Your task to perform on an android device: Open Android settings Image 0: 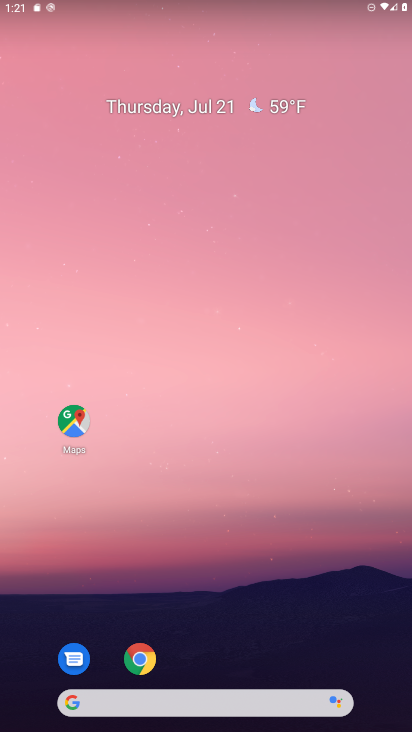
Step 0: drag from (10, 726) to (240, 153)
Your task to perform on an android device: Open Android settings Image 1: 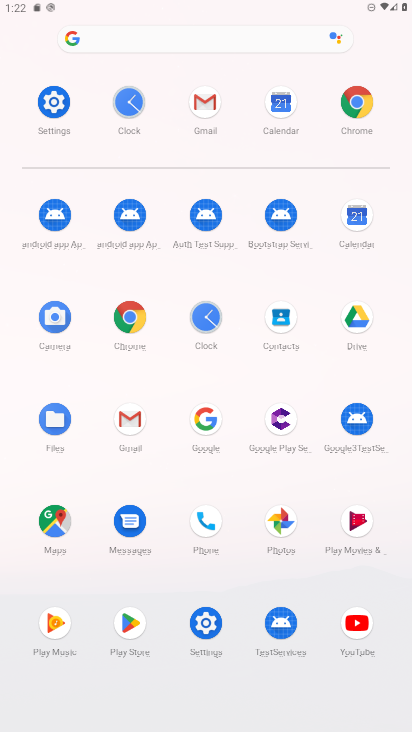
Step 1: click (54, 116)
Your task to perform on an android device: Open Android settings Image 2: 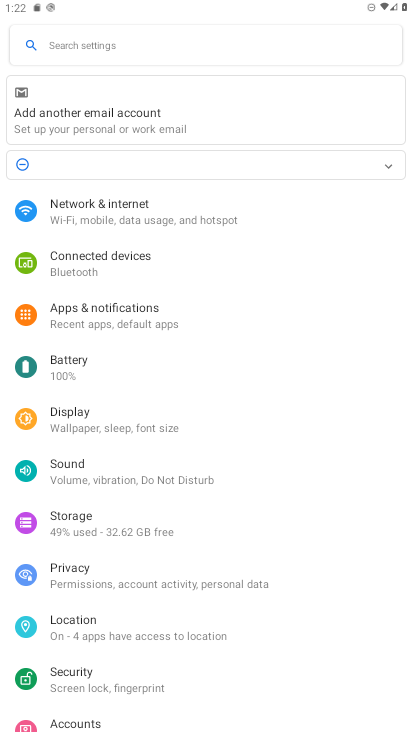
Step 2: click (70, 226)
Your task to perform on an android device: Open Android settings Image 3: 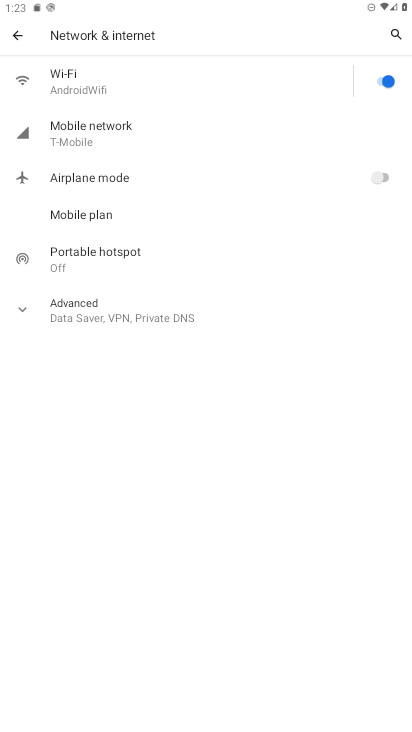
Step 3: task complete